Your task to perform on an android device: Check the news Image 0: 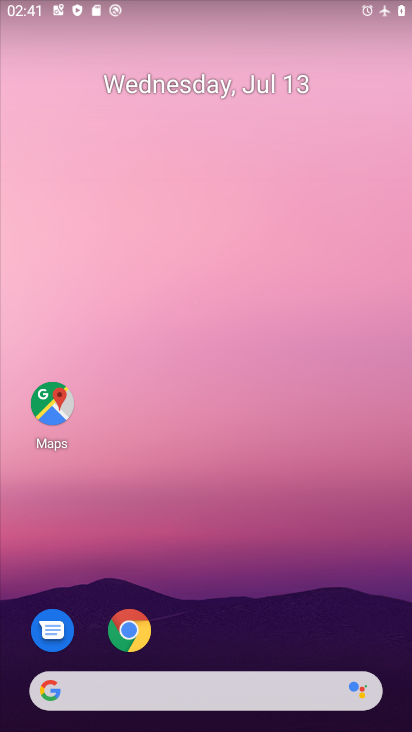
Step 0: drag from (218, 648) to (182, 298)
Your task to perform on an android device: Check the news Image 1: 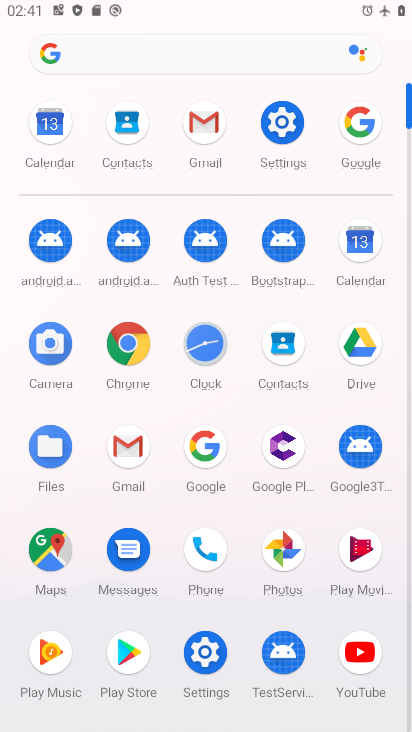
Step 1: click (213, 437)
Your task to perform on an android device: Check the news Image 2: 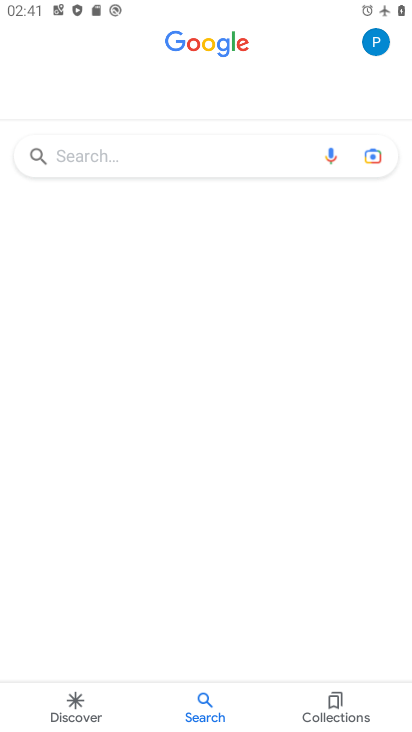
Step 2: click (137, 177)
Your task to perform on an android device: Check the news Image 3: 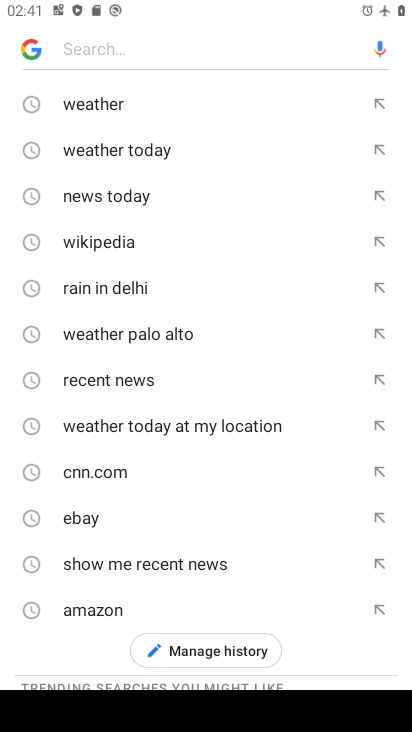
Step 3: click (146, 204)
Your task to perform on an android device: Check the news Image 4: 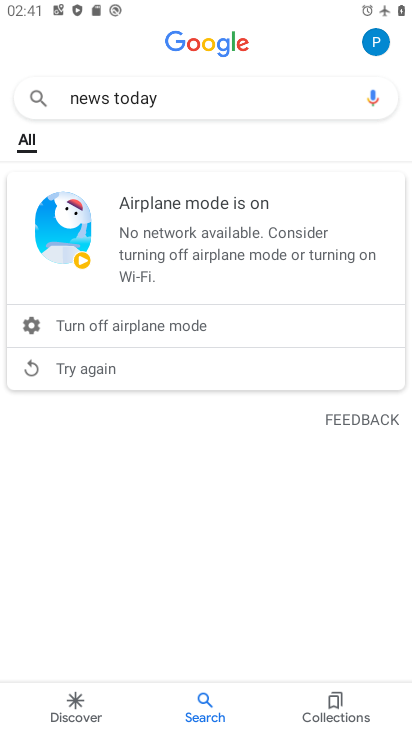
Step 4: task complete